Your task to perform on an android device: delete location history Image 0: 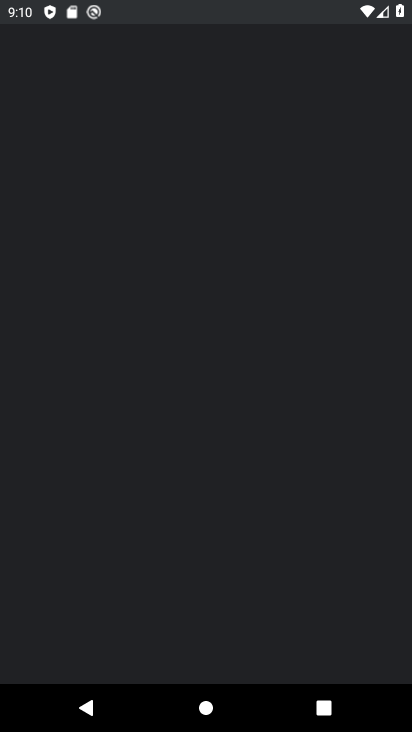
Step 0: drag from (193, 605) to (203, 302)
Your task to perform on an android device: delete location history Image 1: 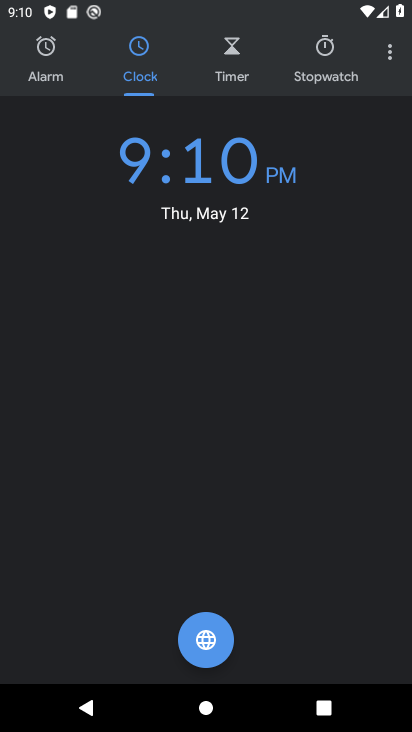
Step 1: press home button
Your task to perform on an android device: delete location history Image 2: 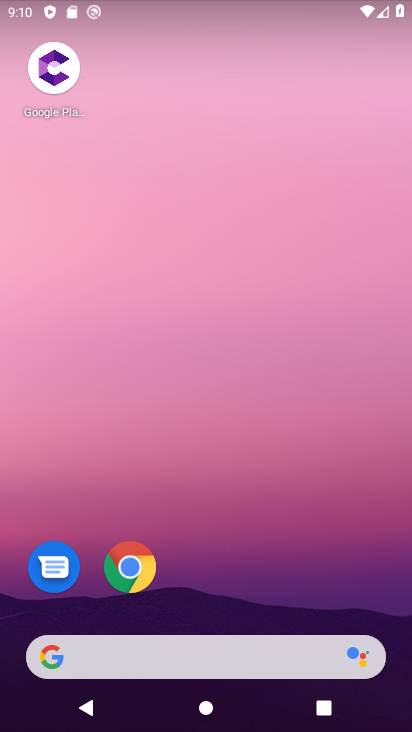
Step 2: drag from (265, 605) to (224, 213)
Your task to perform on an android device: delete location history Image 3: 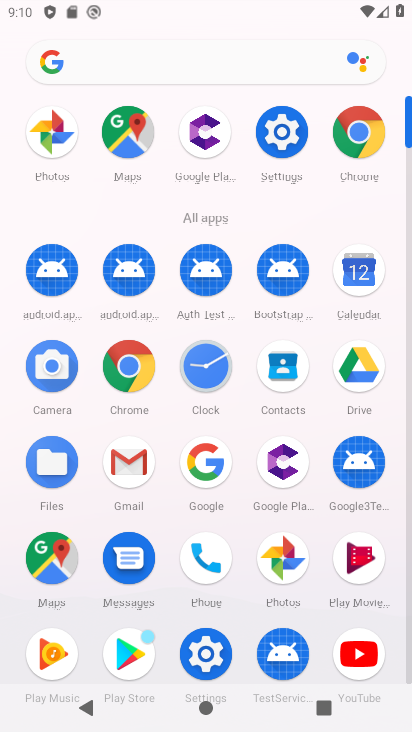
Step 3: click (207, 675)
Your task to perform on an android device: delete location history Image 4: 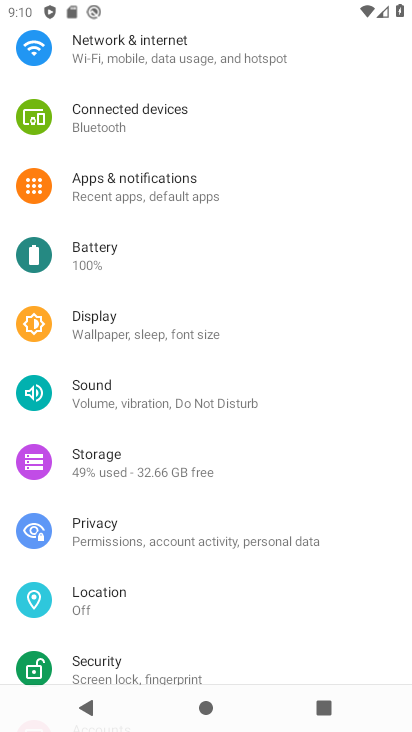
Step 4: click (124, 605)
Your task to perform on an android device: delete location history Image 5: 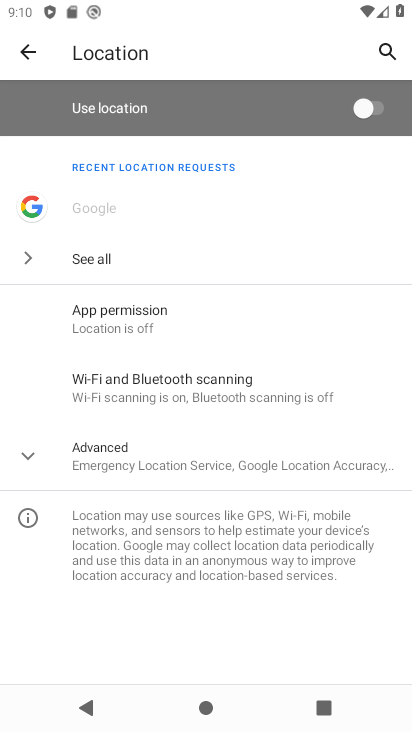
Step 5: click (85, 459)
Your task to perform on an android device: delete location history Image 6: 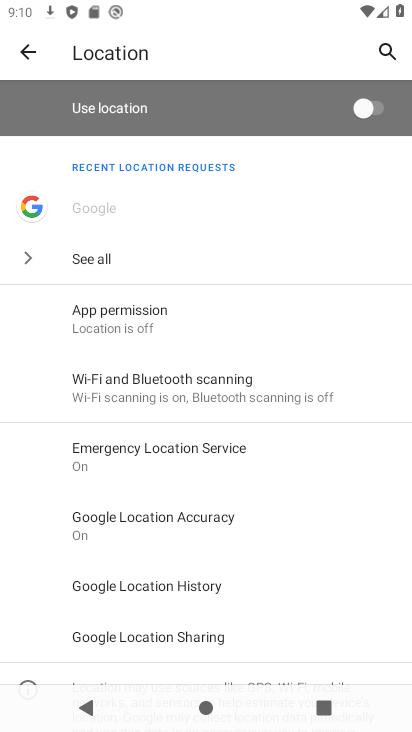
Step 6: click (149, 584)
Your task to perform on an android device: delete location history Image 7: 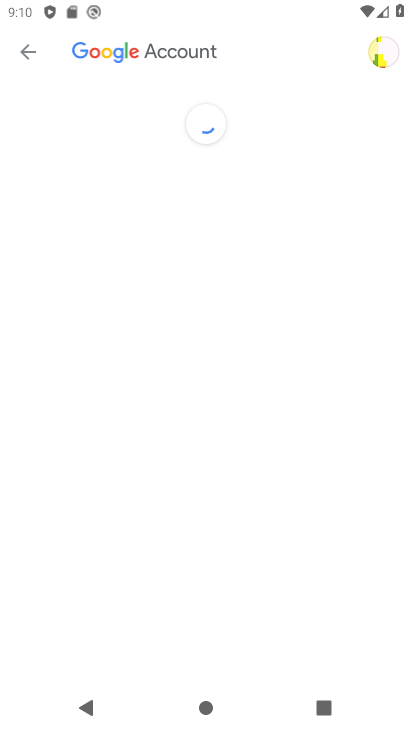
Step 7: drag from (287, 472) to (301, 215)
Your task to perform on an android device: delete location history Image 8: 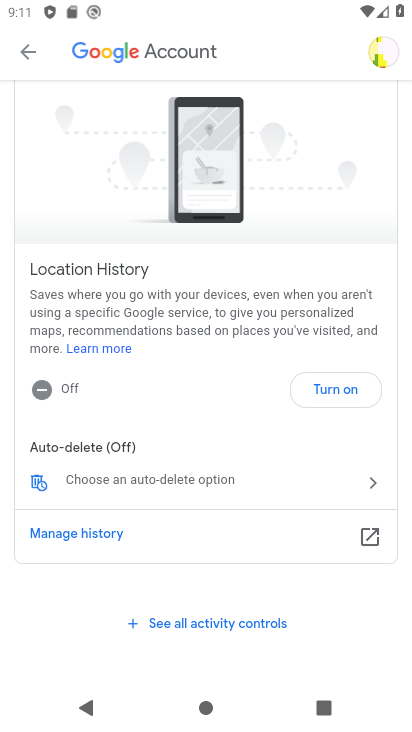
Step 8: click (97, 535)
Your task to perform on an android device: delete location history Image 9: 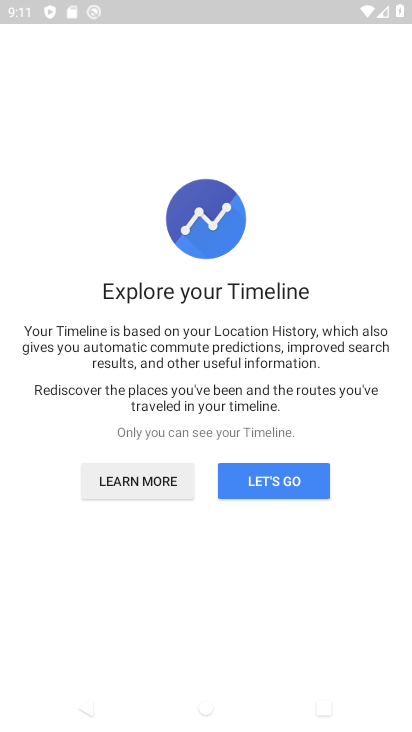
Step 9: drag from (225, 677) to (271, 434)
Your task to perform on an android device: delete location history Image 10: 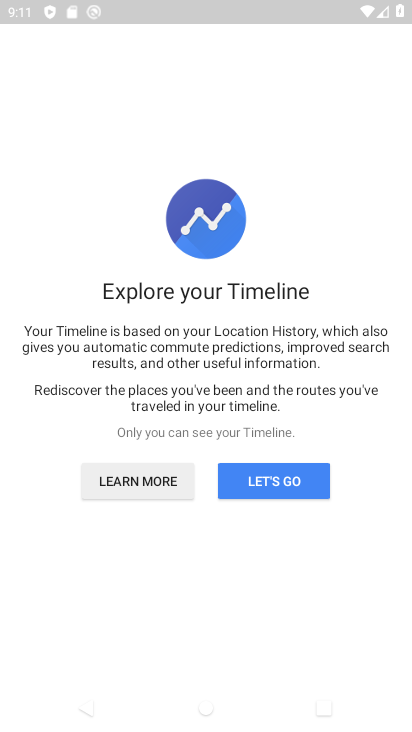
Step 10: click (268, 483)
Your task to perform on an android device: delete location history Image 11: 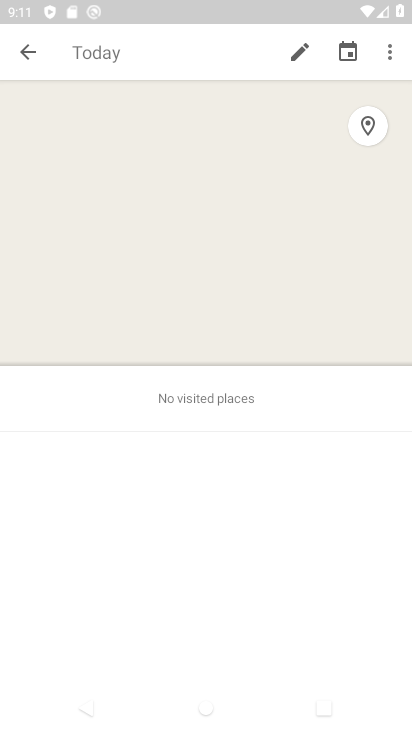
Step 11: click (389, 46)
Your task to perform on an android device: delete location history Image 12: 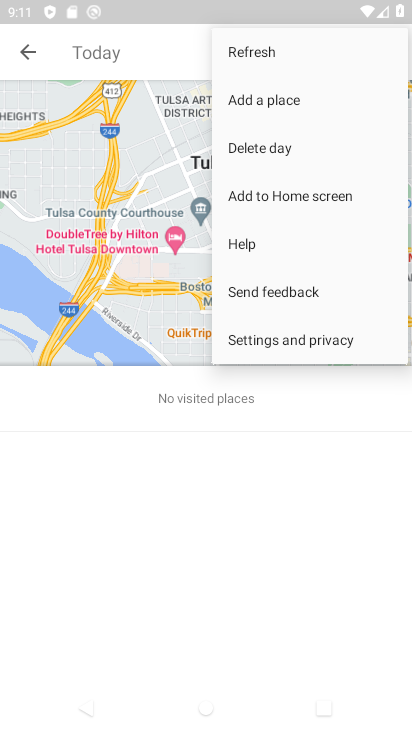
Step 12: click (269, 341)
Your task to perform on an android device: delete location history Image 13: 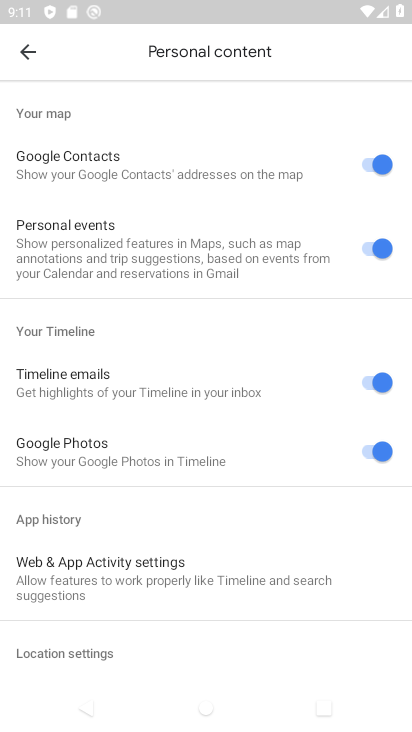
Step 13: drag from (125, 577) to (170, 278)
Your task to perform on an android device: delete location history Image 14: 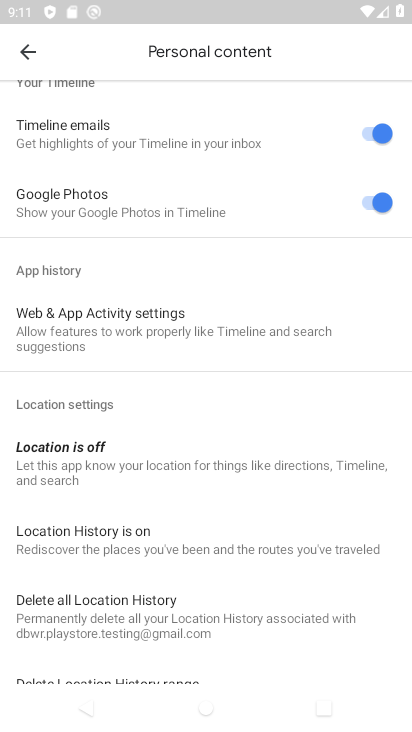
Step 14: click (88, 628)
Your task to perform on an android device: delete location history Image 15: 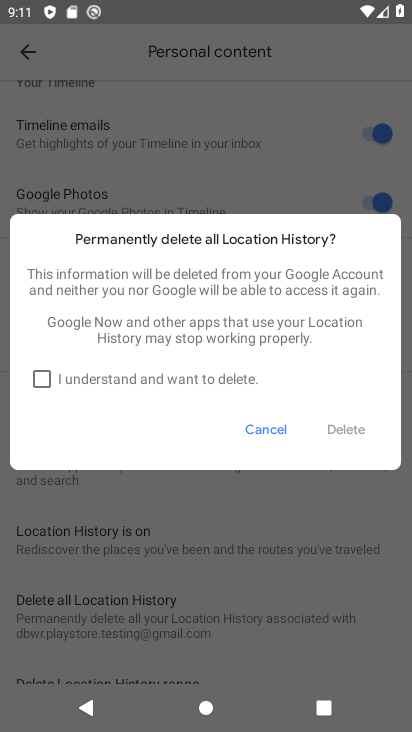
Step 15: click (38, 371)
Your task to perform on an android device: delete location history Image 16: 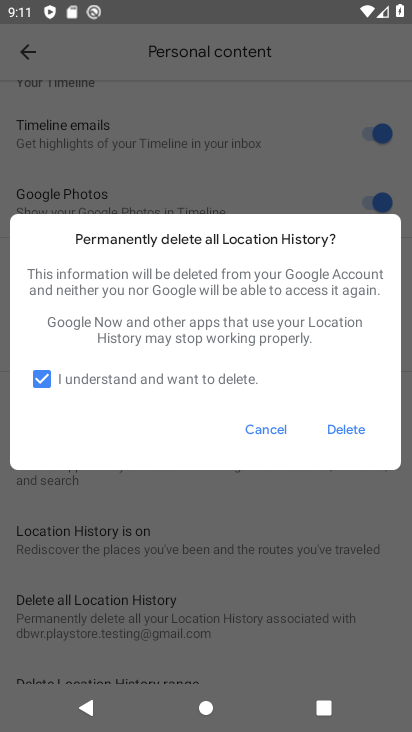
Step 16: click (351, 431)
Your task to perform on an android device: delete location history Image 17: 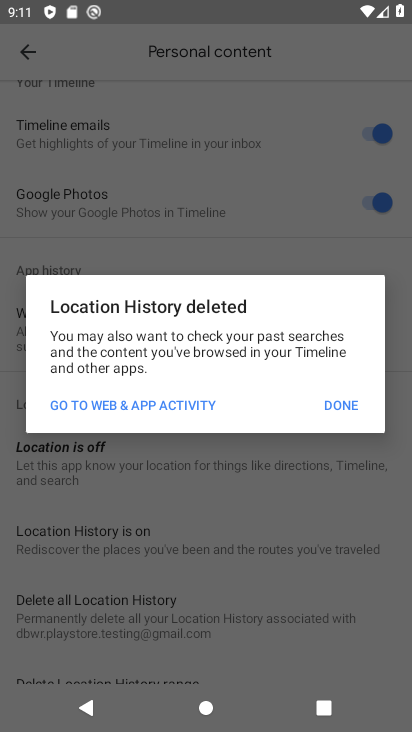
Step 17: task complete